Your task to perform on an android device: turn on priority inbox in the gmail app Image 0: 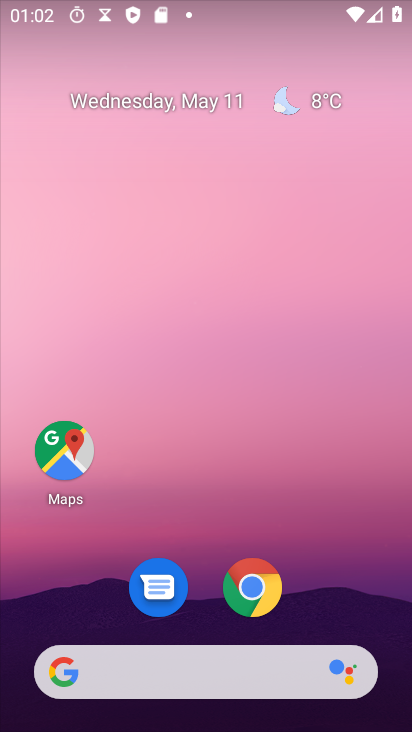
Step 0: drag from (337, 636) to (208, 39)
Your task to perform on an android device: turn on priority inbox in the gmail app Image 1: 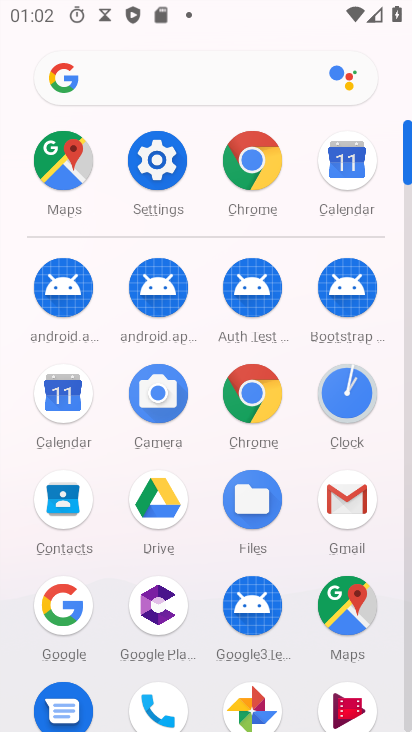
Step 1: click (342, 495)
Your task to perform on an android device: turn on priority inbox in the gmail app Image 2: 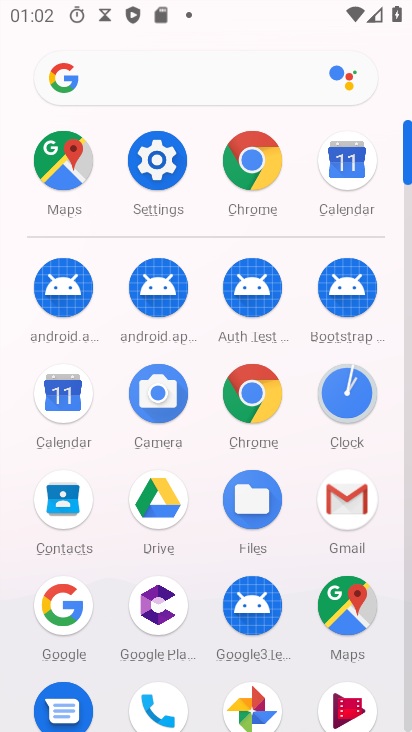
Step 2: click (342, 495)
Your task to perform on an android device: turn on priority inbox in the gmail app Image 3: 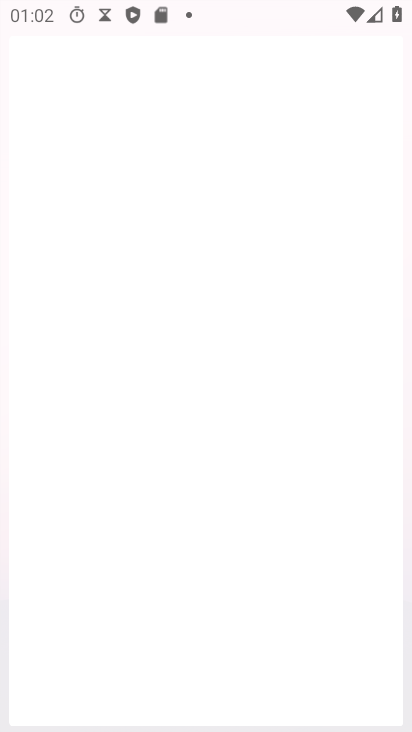
Step 3: click (342, 495)
Your task to perform on an android device: turn on priority inbox in the gmail app Image 4: 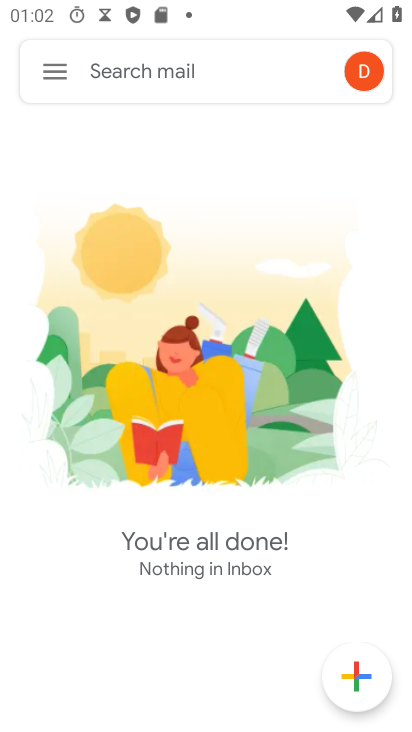
Step 4: click (42, 65)
Your task to perform on an android device: turn on priority inbox in the gmail app Image 5: 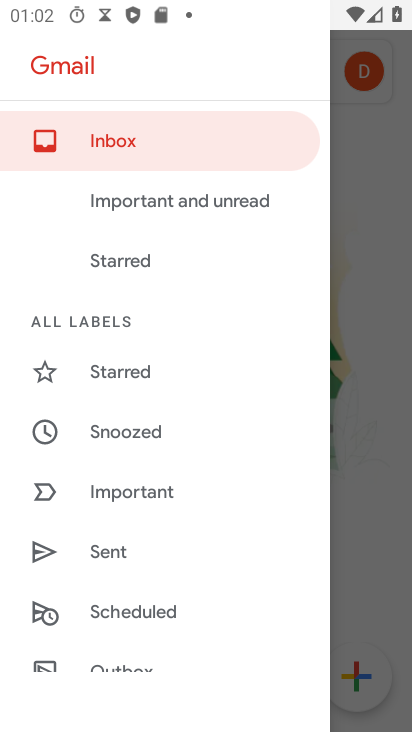
Step 5: click (112, 224)
Your task to perform on an android device: turn on priority inbox in the gmail app Image 6: 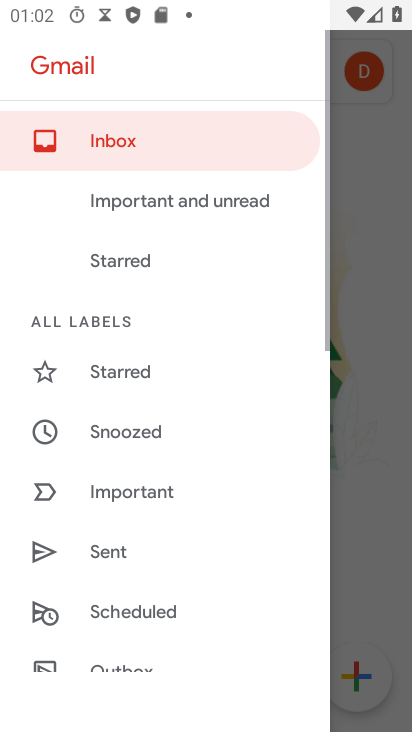
Step 6: drag from (211, 513) to (152, 126)
Your task to perform on an android device: turn on priority inbox in the gmail app Image 7: 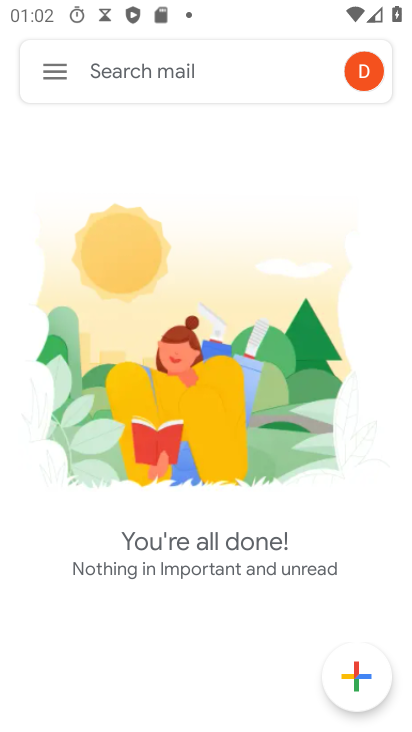
Step 7: click (66, 72)
Your task to perform on an android device: turn on priority inbox in the gmail app Image 8: 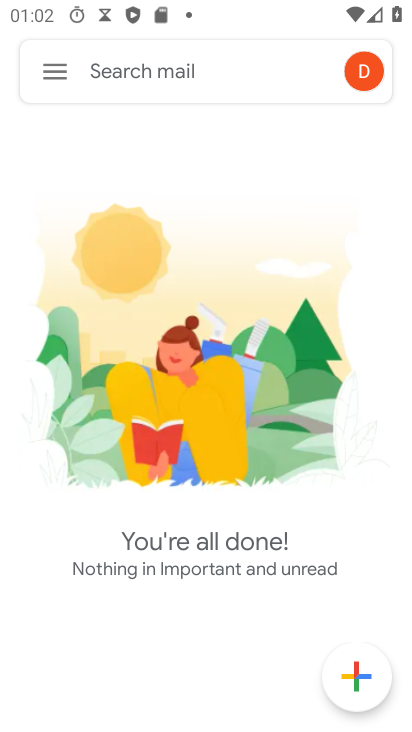
Step 8: click (66, 72)
Your task to perform on an android device: turn on priority inbox in the gmail app Image 9: 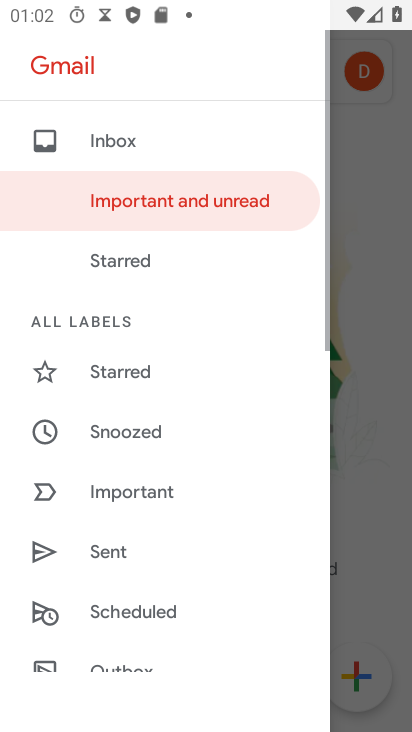
Step 9: drag from (174, 550) to (157, 274)
Your task to perform on an android device: turn on priority inbox in the gmail app Image 10: 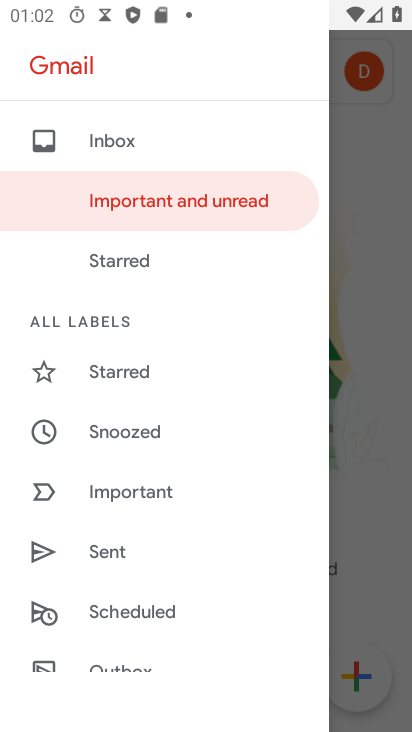
Step 10: drag from (213, 499) to (168, 139)
Your task to perform on an android device: turn on priority inbox in the gmail app Image 11: 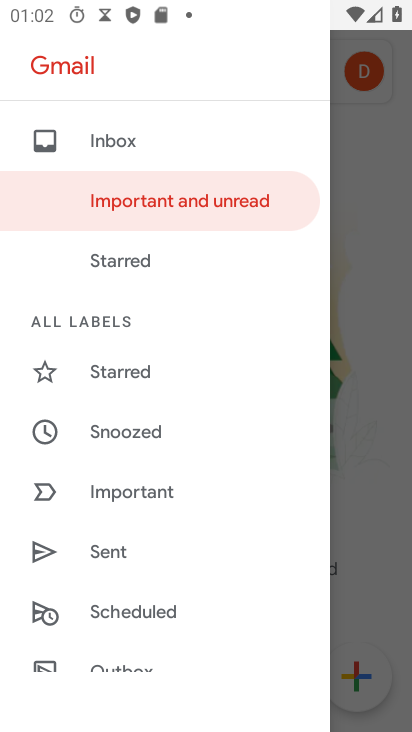
Step 11: drag from (171, 446) to (159, 287)
Your task to perform on an android device: turn on priority inbox in the gmail app Image 12: 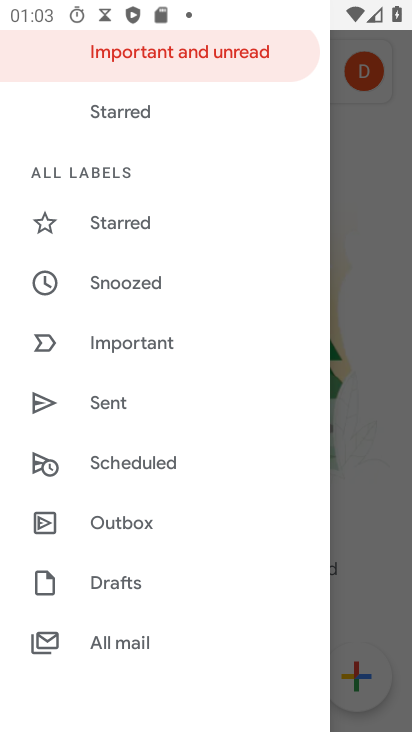
Step 12: drag from (173, 591) to (137, 158)
Your task to perform on an android device: turn on priority inbox in the gmail app Image 13: 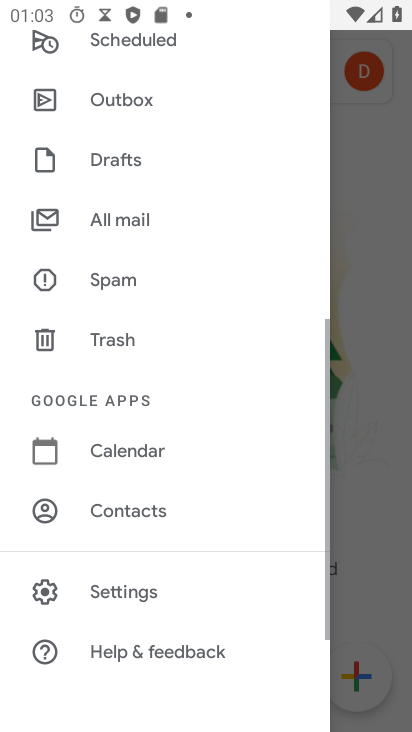
Step 13: drag from (187, 467) to (181, 64)
Your task to perform on an android device: turn on priority inbox in the gmail app Image 14: 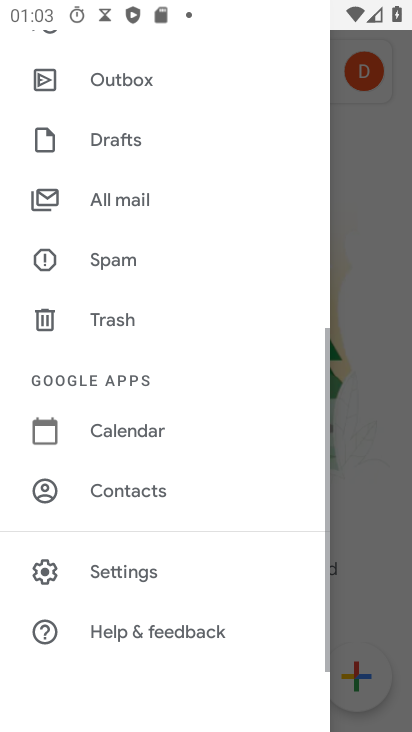
Step 14: click (127, 571)
Your task to perform on an android device: turn on priority inbox in the gmail app Image 15: 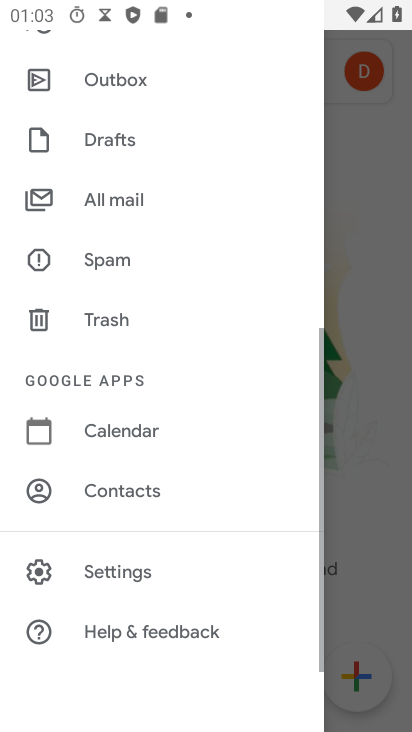
Step 15: click (127, 569)
Your task to perform on an android device: turn on priority inbox in the gmail app Image 16: 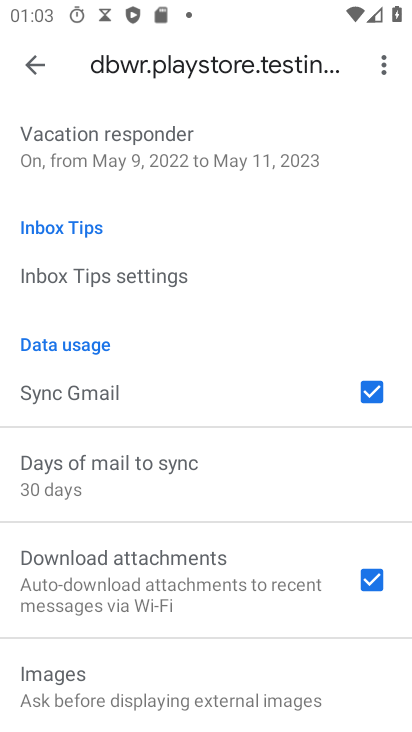
Step 16: click (66, 267)
Your task to perform on an android device: turn on priority inbox in the gmail app Image 17: 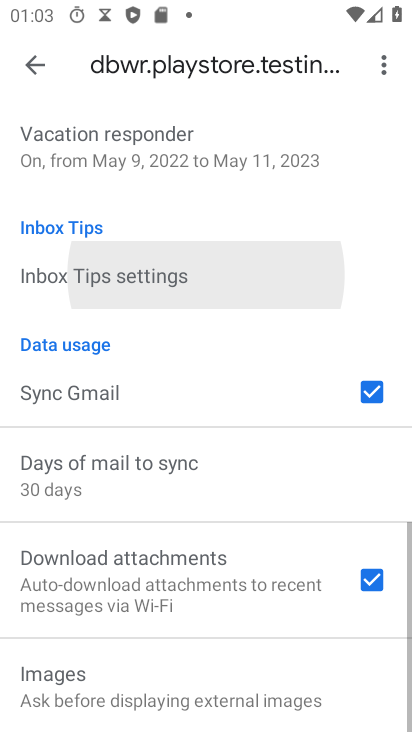
Step 17: click (68, 269)
Your task to perform on an android device: turn on priority inbox in the gmail app Image 18: 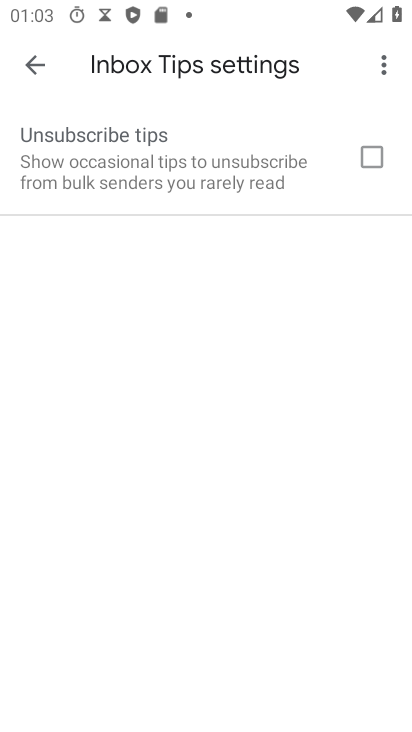
Step 18: click (37, 69)
Your task to perform on an android device: turn on priority inbox in the gmail app Image 19: 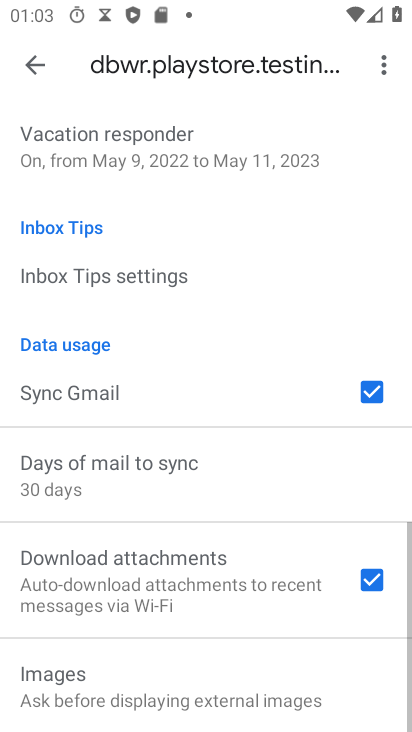
Step 19: drag from (199, 193) to (197, 614)
Your task to perform on an android device: turn on priority inbox in the gmail app Image 20: 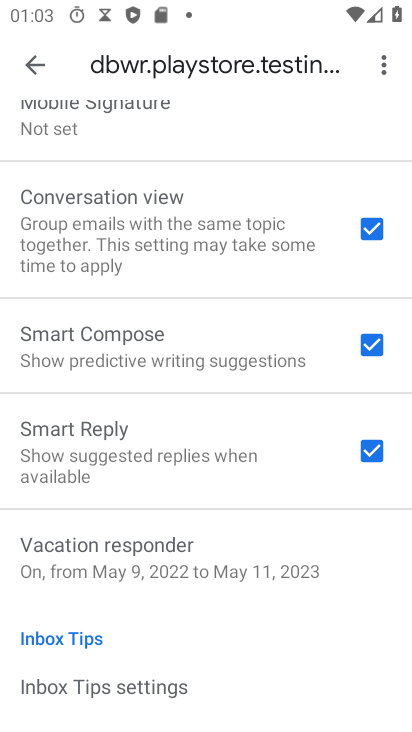
Step 20: drag from (155, 242) to (174, 621)
Your task to perform on an android device: turn on priority inbox in the gmail app Image 21: 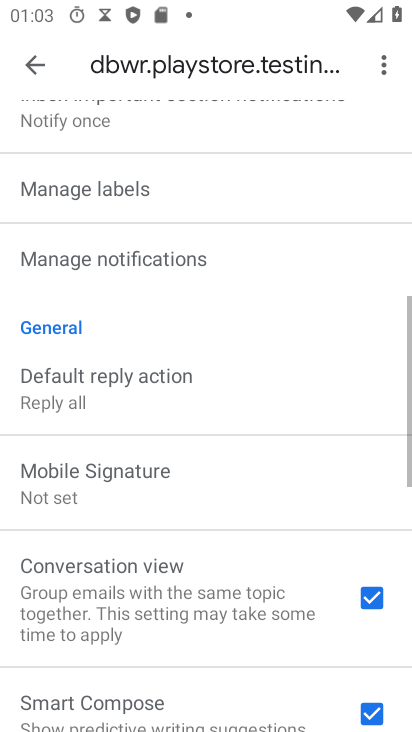
Step 21: drag from (112, 166) to (178, 644)
Your task to perform on an android device: turn on priority inbox in the gmail app Image 22: 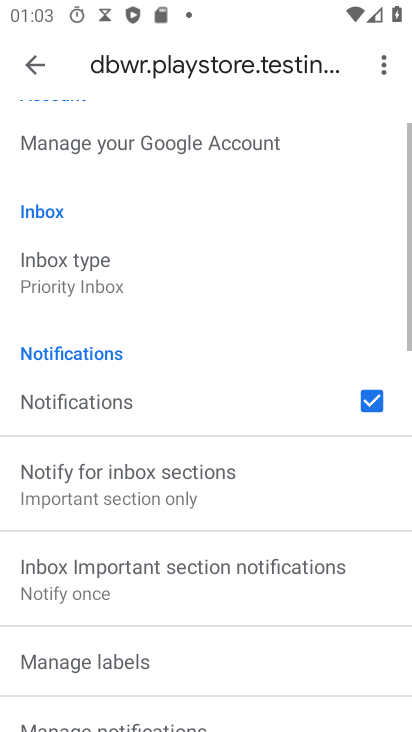
Step 22: drag from (61, 266) to (170, 698)
Your task to perform on an android device: turn on priority inbox in the gmail app Image 23: 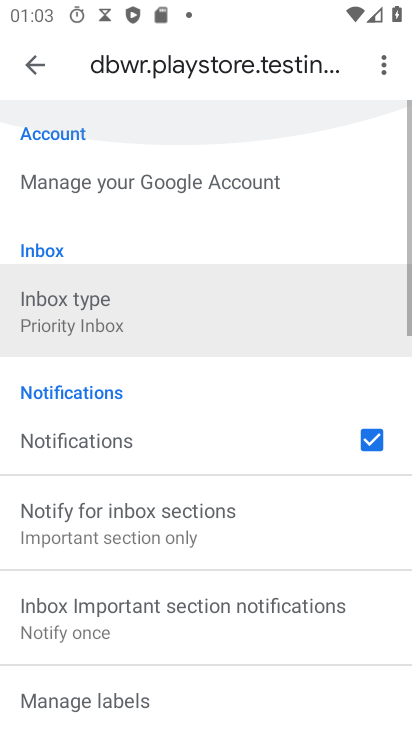
Step 23: drag from (114, 258) to (195, 603)
Your task to perform on an android device: turn on priority inbox in the gmail app Image 24: 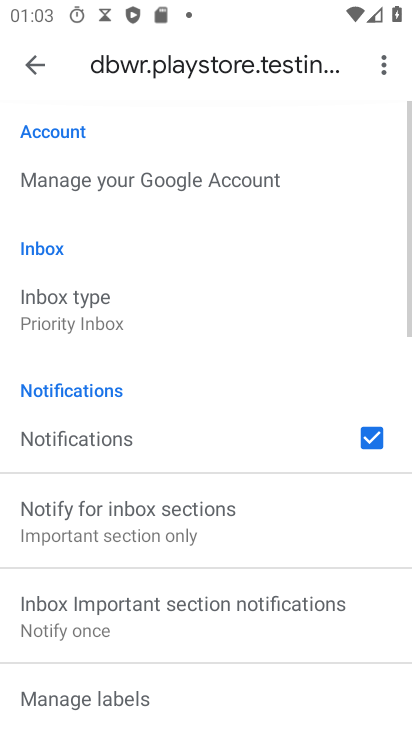
Step 24: click (100, 304)
Your task to perform on an android device: turn on priority inbox in the gmail app Image 25: 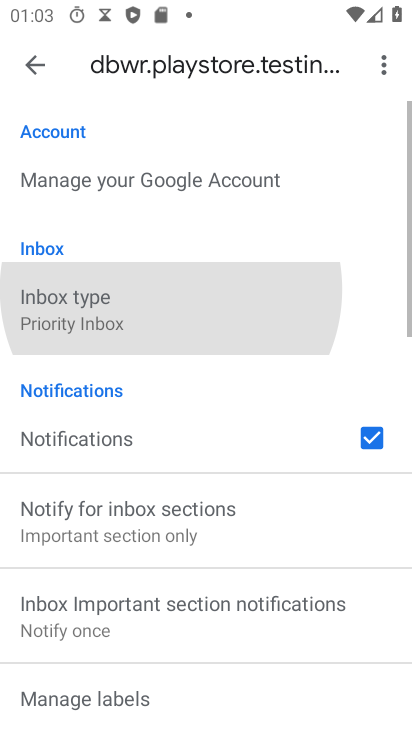
Step 25: click (98, 306)
Your task to perform on an android device: turn on priority inbox in the gmail app Image 26: 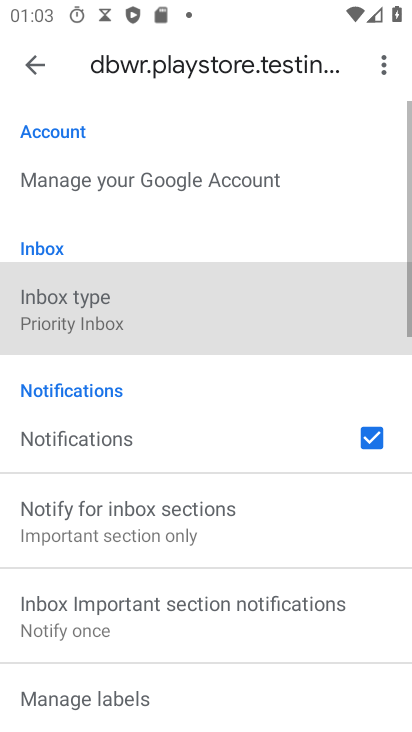
Step 26: click (98, 306)
Your task to perform on an android device: turn on priority inbox in the gmail app Image 27: 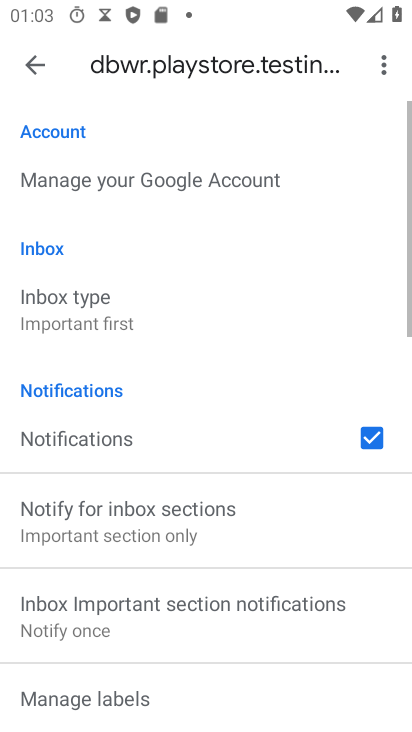
Step 27: click (106, 304)
Your task to perform on an android device: turn on priority inbox in the gmail app Image 28: 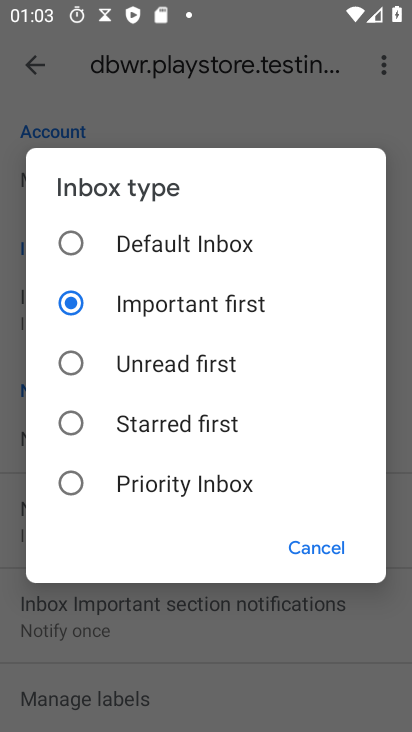
Step 28: click (73, 474)
Your task to perform on an android device: turn on priority inbox in the gmail app Image 29: 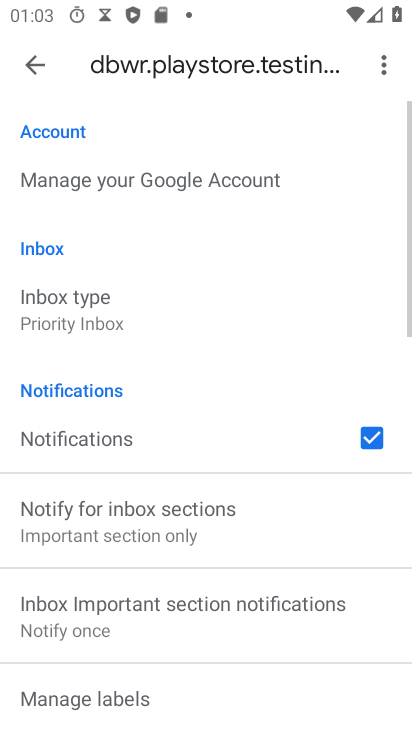
Step 29: task complete